Your task to perform on an android device: Go to display settings Image 0: 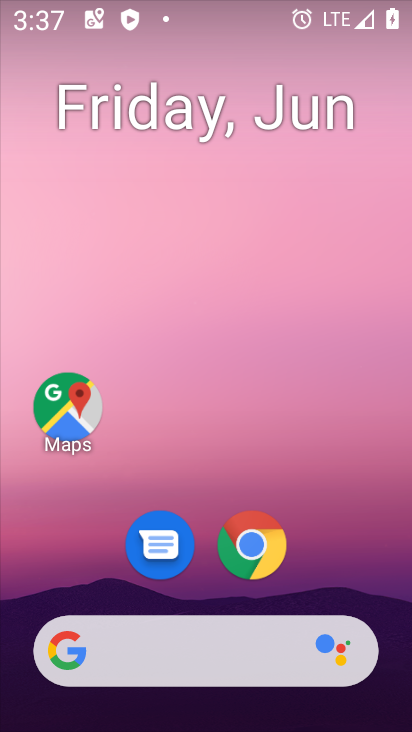
Step 0: drag from (307, 82) to (307, 33)
Your task to perform on an android device: Go to display settings Image 1: 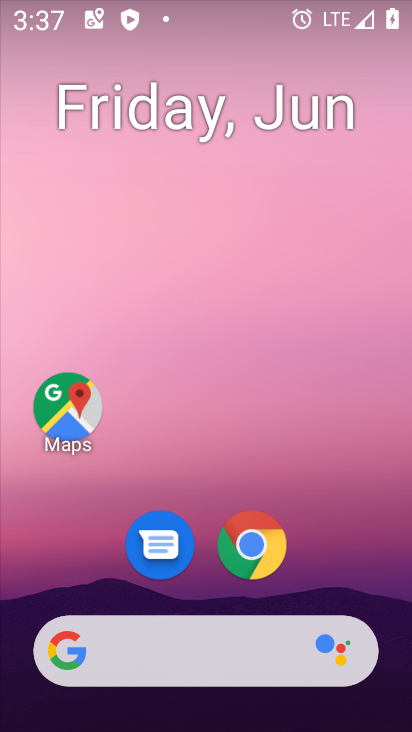
Step 1: drag from (323, 580) to (280, 6)
Your task to perform on an android device: Go to display settings Image 2: 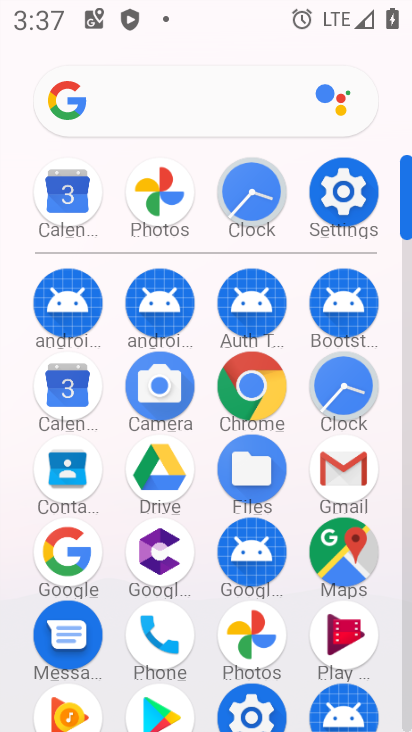
Step 2: click (351, 202)
Your task to perform on an android device: Go to display settings Image 3: 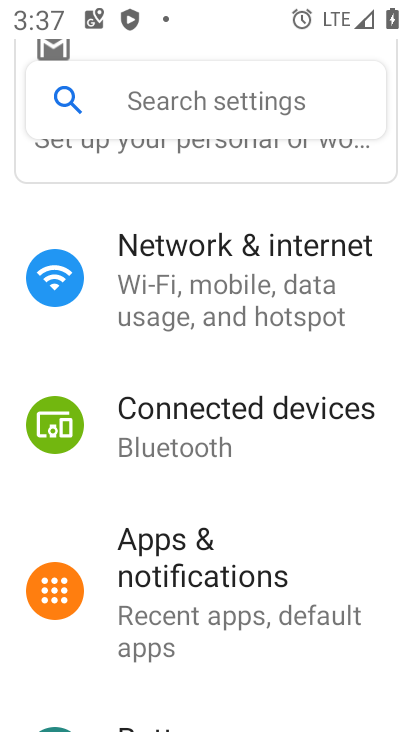
Step 3: drag from (192, 680) to (197, 244)
Your task to perform on an android device: Go to display settings Image 4: 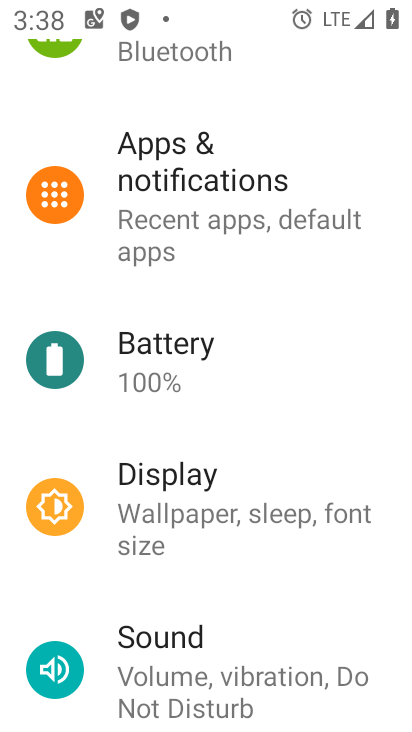
Step 4: click (171, 538)
Your task to perform on an android device: Go to display settings Image 5: 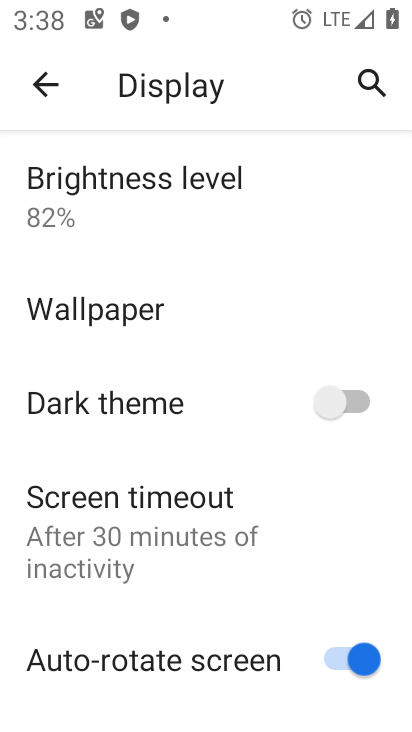
Step 5: task complete